Your task to perform on an android device: Add "apple airpods" to the cart on costco.com, then select checkout. Image 0: 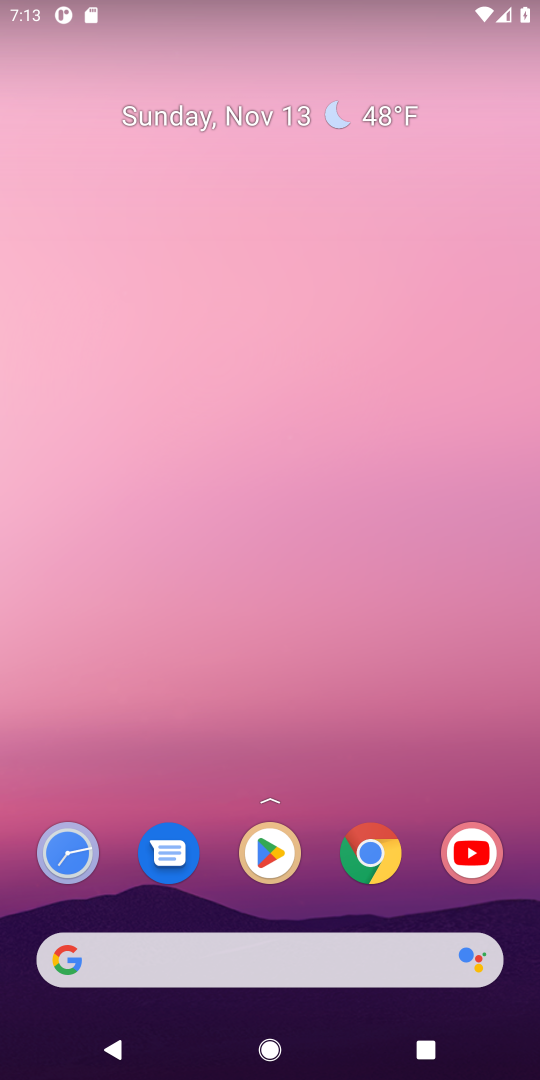
Step 0: press home button
Your task to perform on an android device: Add "apple airpods" to the cart on costco.com, then select checkout. Image 1: 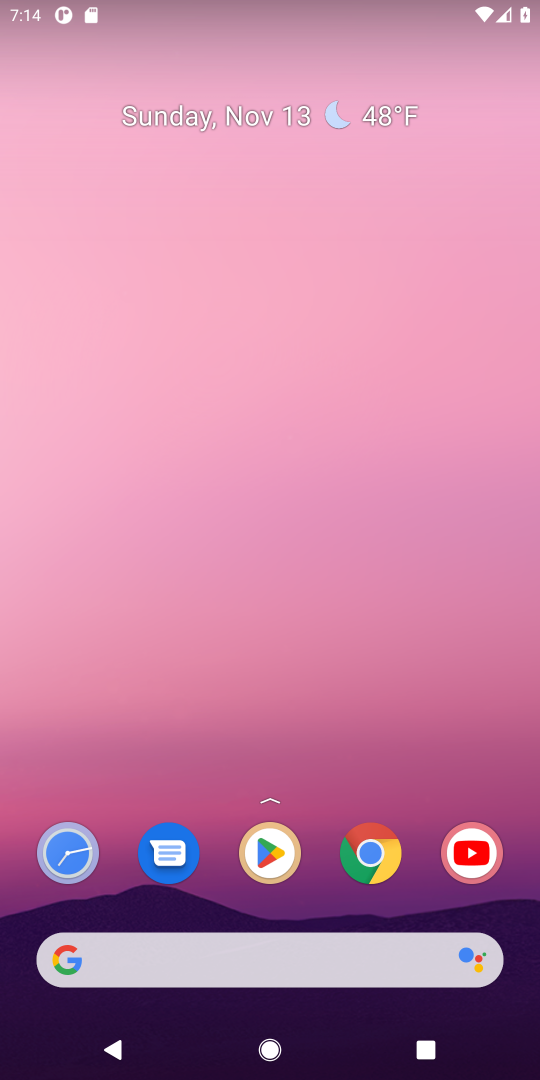
Step 1: click (101, 957)
Your task to perform on an android device: Add "apple airpods" to the cart on costco.com, then select checkout. Image 2: 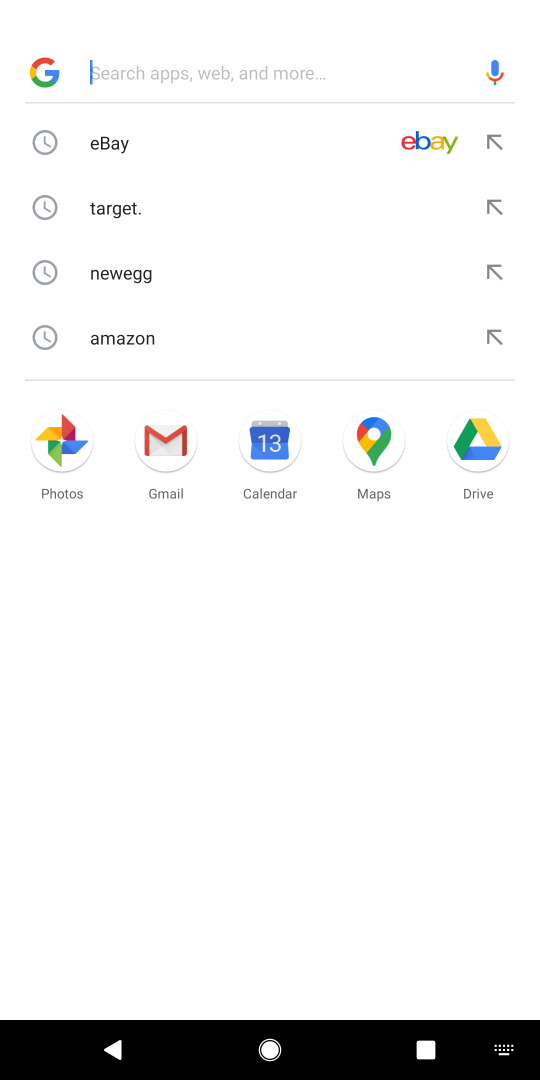
Step 2: type "costco.com"
Your task to perform on an android device: Add "apple airpods" to the cart on costco.com, then select checkout. Image 3: 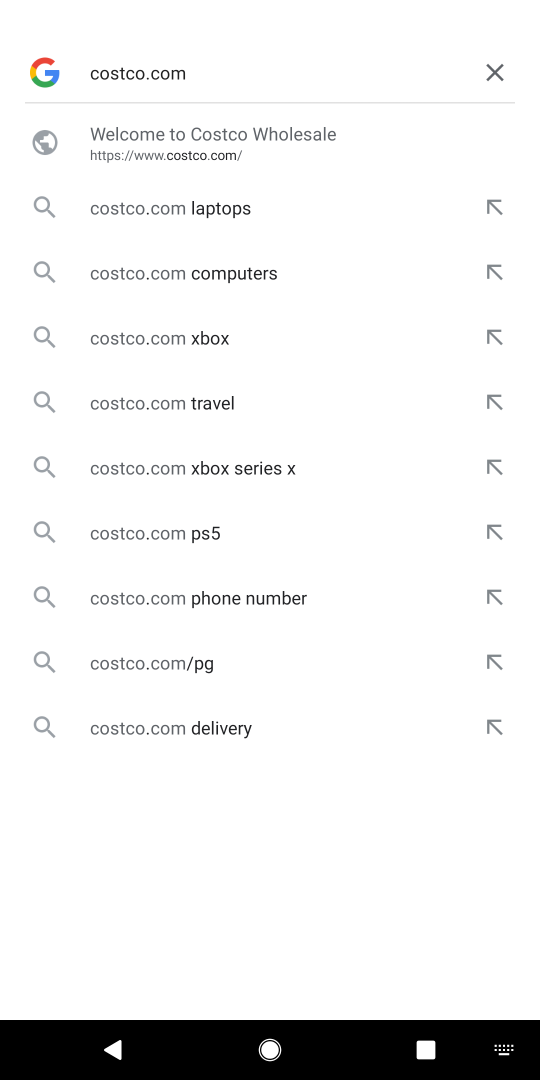
Step 3: press enter
Your task to perform on an android device: Add "apple airpods" to the cart on costco.com, then select checkout. Image 4: 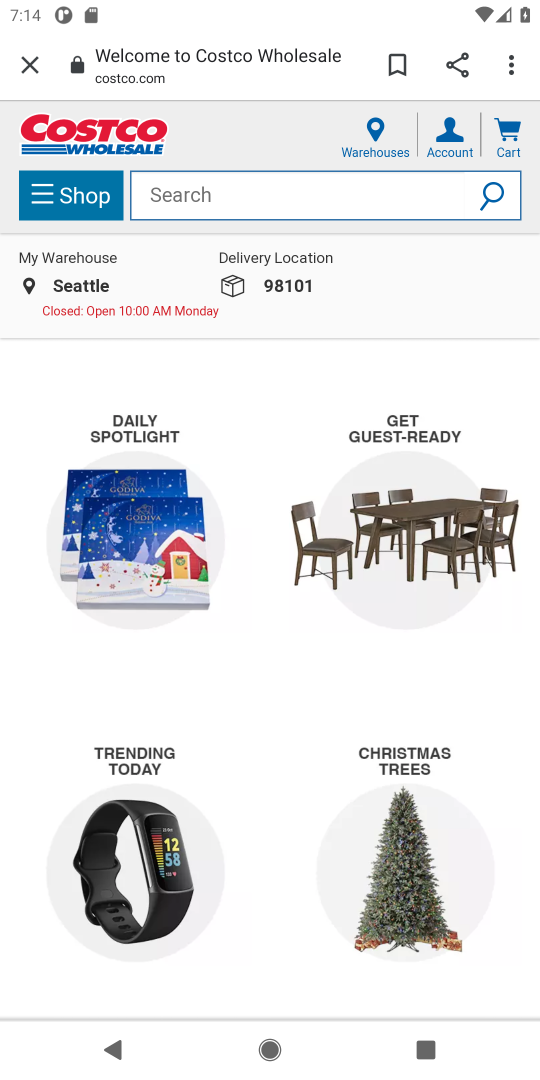
Step 4: click (181, 192)
Your task to perform on an android device: Add "apple airpods" to the cart on costco.com, then select checkout. Image 5: 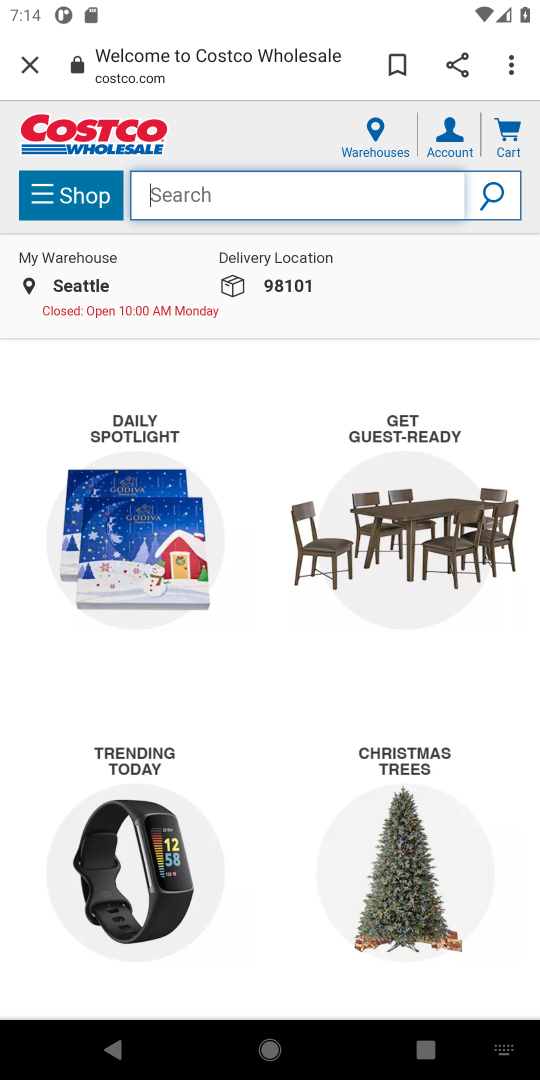
Step 5: type "apple airpods"
Your task to perform on an android device: Add "apple airpods" to the cart on costco.com, then select checkout. Image 6: 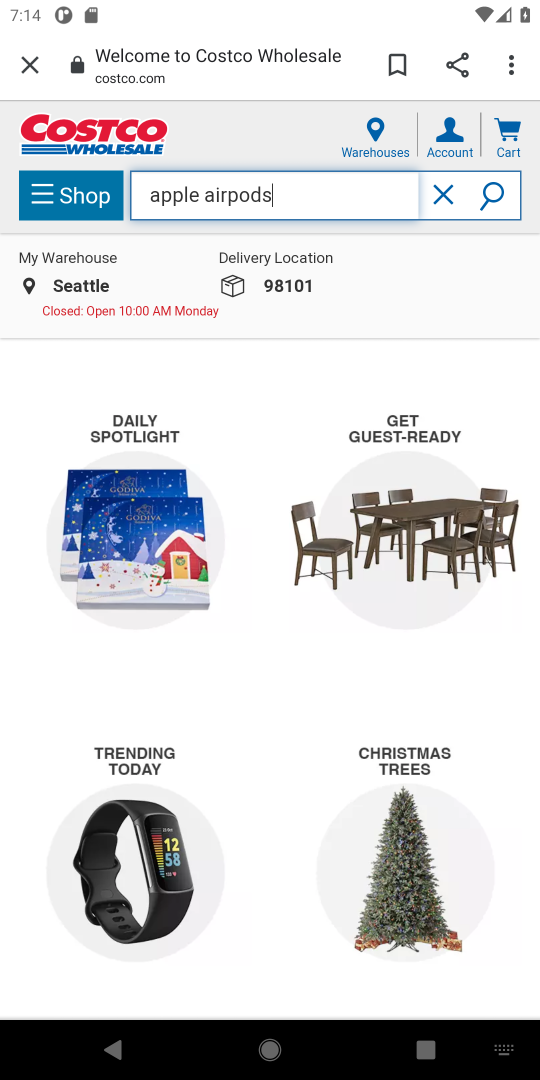
Step 6: press enter
Your task to perform on an android device: Add "apple airpods" to the cart on costco.com, then select checkout. Image 7: 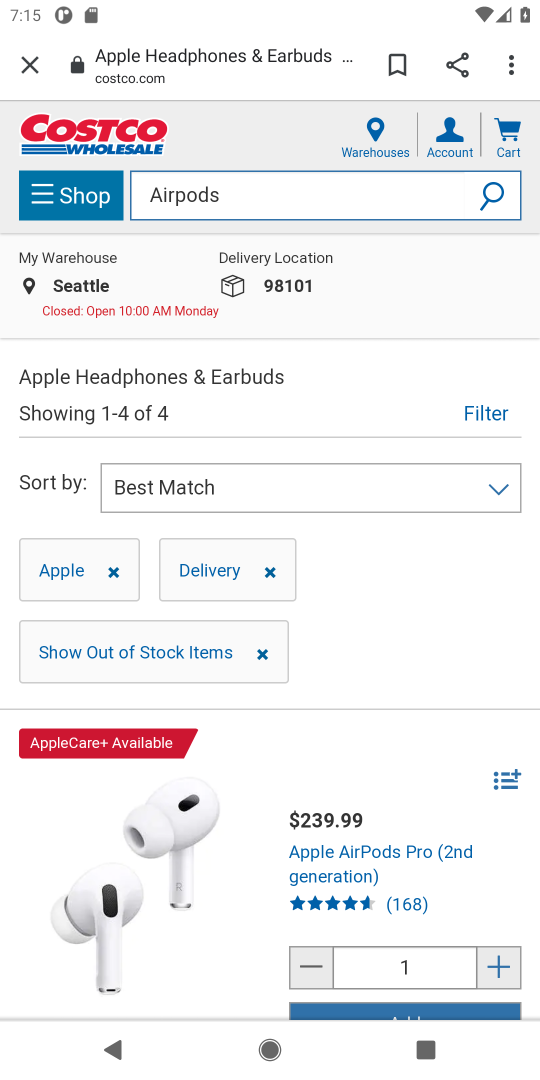
Step 7: drag from (330, 666) to (328, 465)
Your task to perform on an android device: Add "apple airpods" to the cart on costco.com, then select checkout. Image 8: 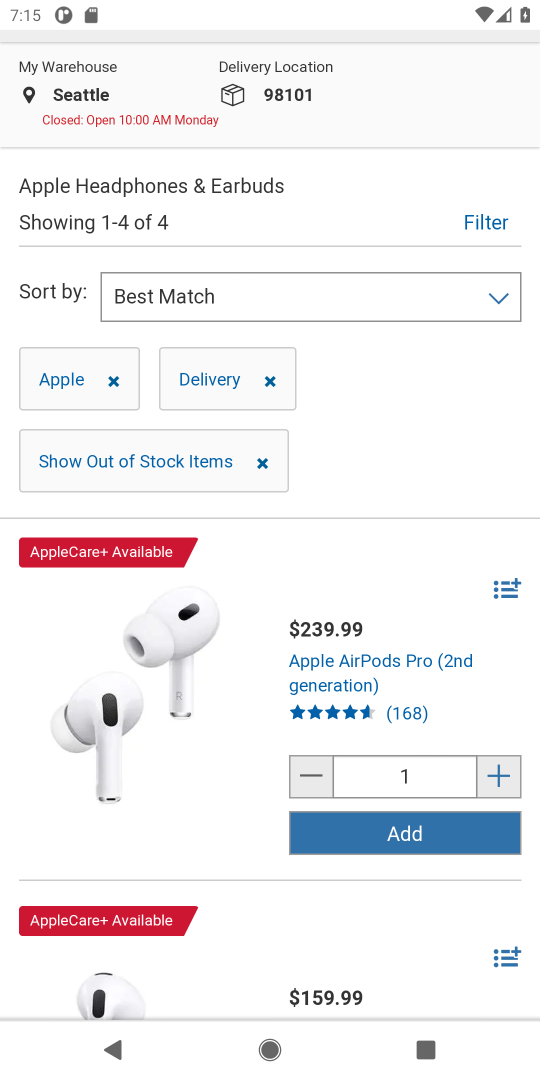
Step 8: drag from (305, 896) to (311, 439)
Your task to perform on an android device: Add "apple airpods" to the cart on costco.com, then select checkout. Image 9: 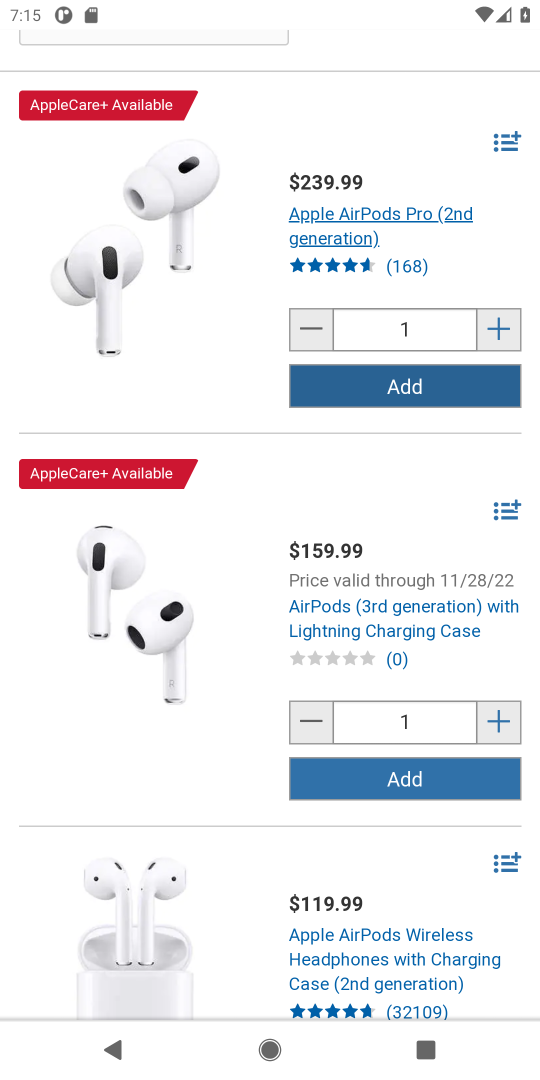
Step 9: click (422, 386)
Your task to perform on an android device: Add "apple airpods" to the cart on costco.com, then select checkout. Image 10: 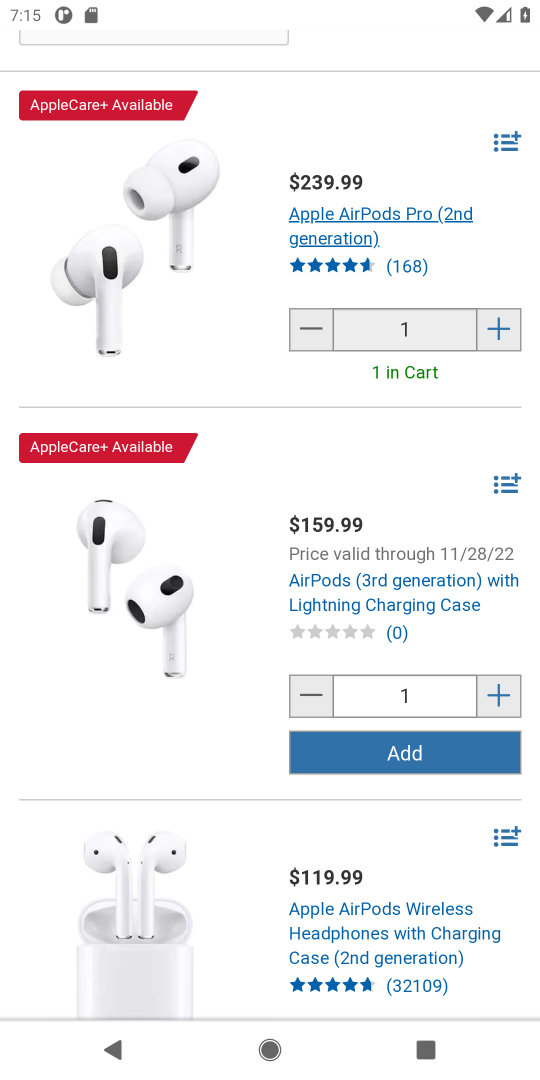
Step 10: drag from (222, 176) to (212, 698)
Your task to perform on an android device: Add "apple airpods" to the cart on costco.com, then select checkout. Image 11: 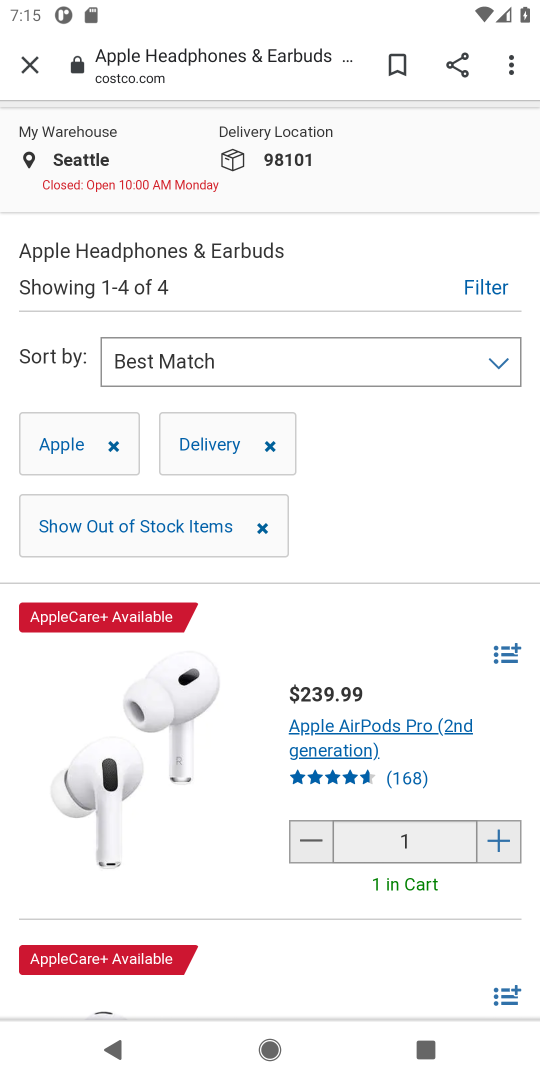
Step 11: drag from (378, 181) to (318, 791)
Your task to perform on an android device: Add "apple airpods" to the cart on costco.com, then select checkout. Image 12: 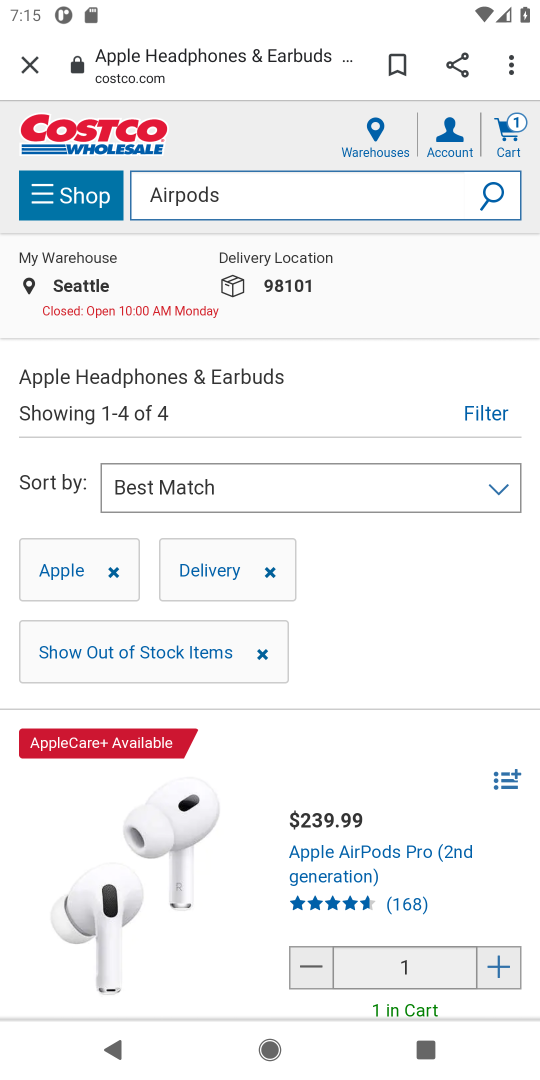
Step 12: click (511, 132)
Your task to perform on an android device: Add "apple airpods" to the cart on costco.com, then select checkout. Image 13: 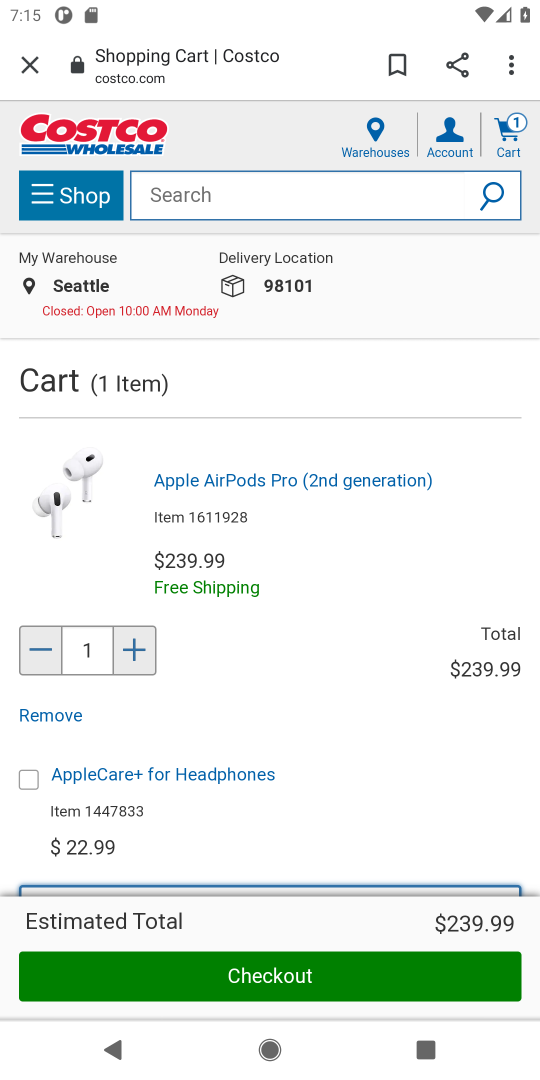
Step 13: click (264, 977)
Your task to perform on an android device: Add "apple airpods" to the cart on costco.com, then select checkout. Image 14: 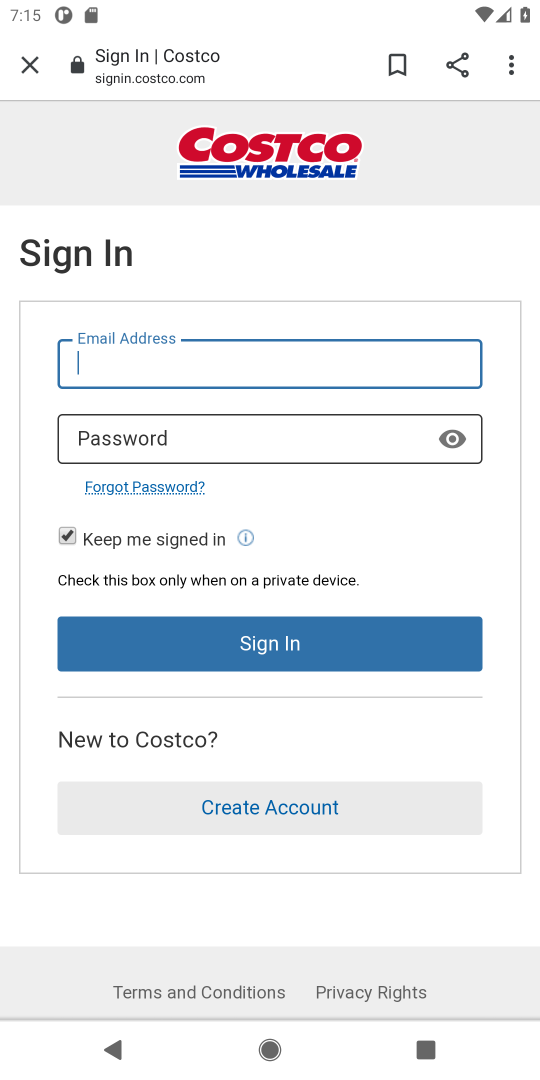
Step 14: task complete